Your task to perform on an android device: Find coffee shops on Maps Image 0: 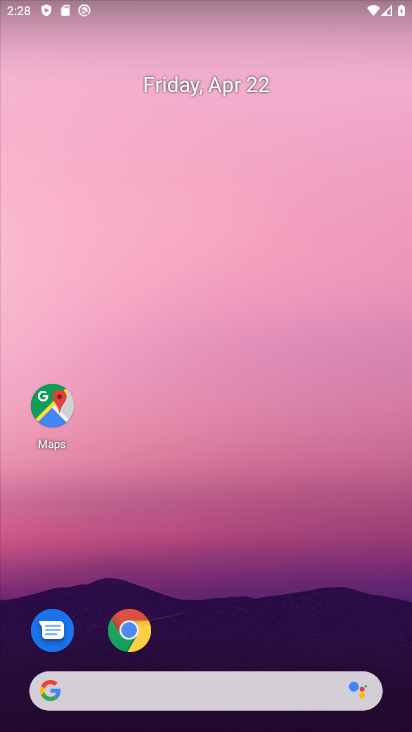
Step 0: drag from (366, 607) to (343, 235)
Your task to perform on an android device: Find coffee shops on Maps Image 1: 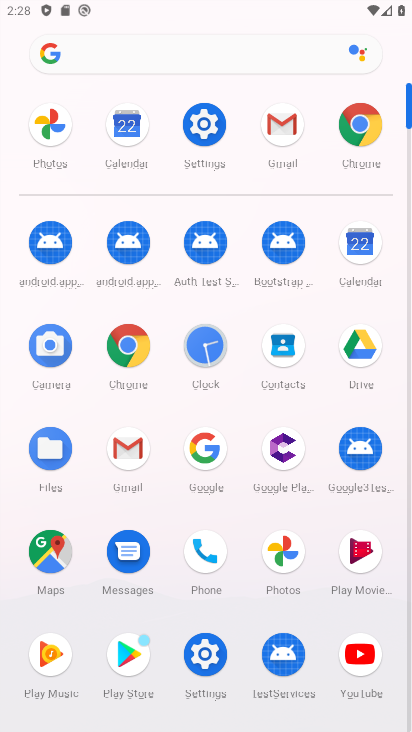
Step 1: click (65, 559)
Your task to perform on an android device: Find coffee shops on Maps Image 2: 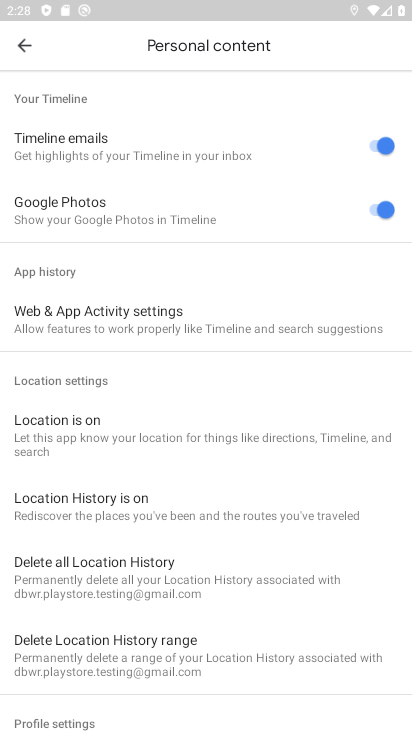
Step 2: click (25, 45)
Your task to perform on an android device: Find coffee shops on Maps Image 3: 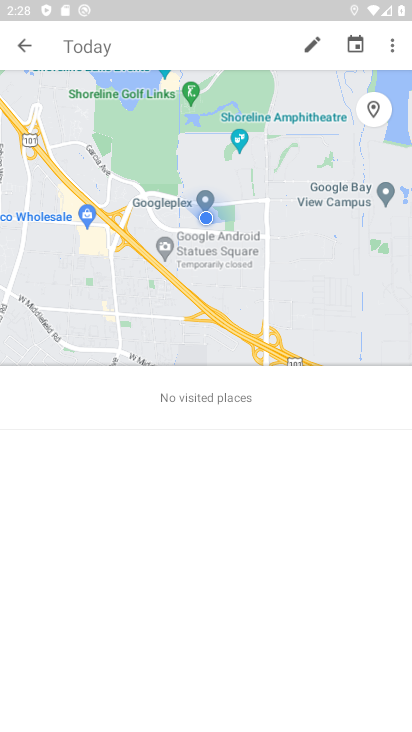
Step 3: click (34, 42)
Your task to perform on an android device: Find coffee shops on Maps Image 4: 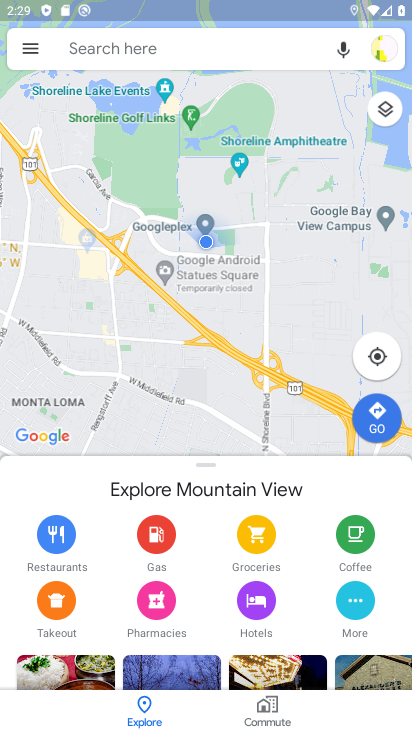
Step 4: click (116, 51)
Your task to perform on an android device: Find coffee shops on Maps Image 5: 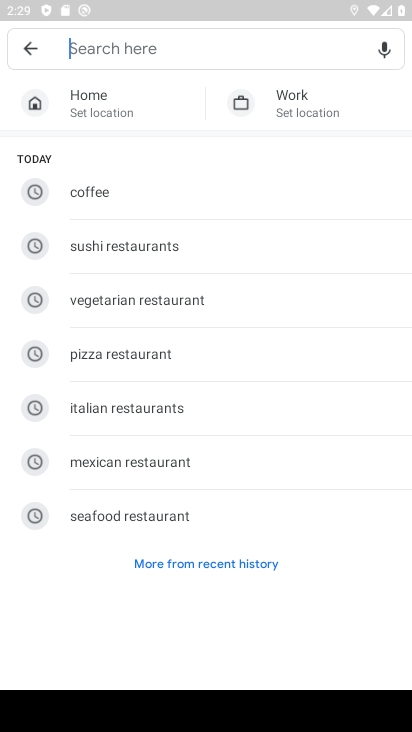
Step 5: type "coffee shops"
Your task to perform on an android device: Find coffee shops on Maps Image 6: 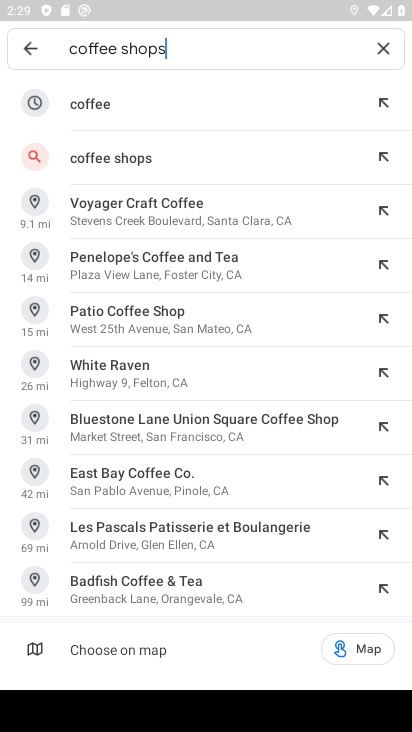
Step 6: click (114, 166)
Your task to perform on an android device: Find coffee shops on Maps Image 7: 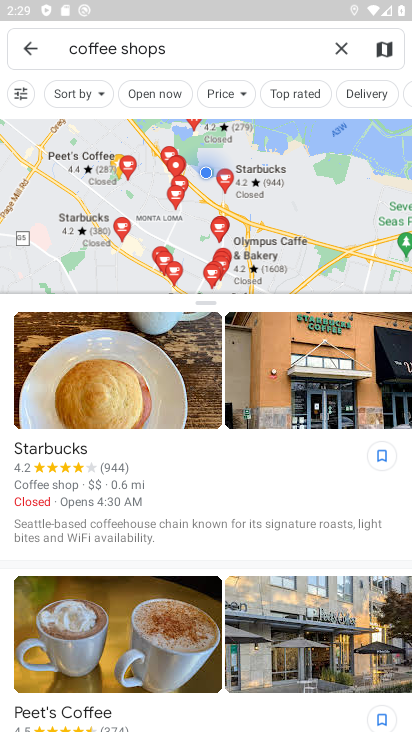
Step 7: task complete